Your task to perform on an android device: Open location settings Image 0: 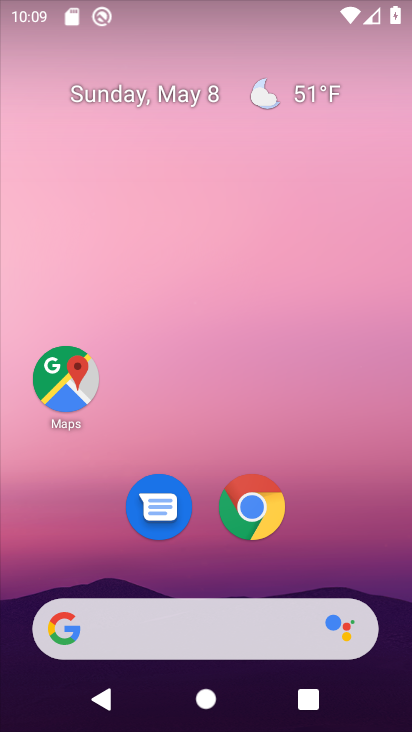
Step 0: drag from (206, 568) to (201, 57)
Your task to perform on an android device: Open location settings Image 1: 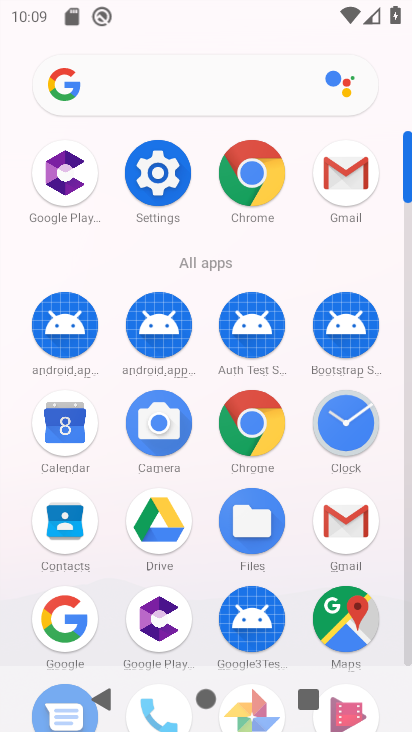
Step 1: drag from (218, 377) to (235, 161)
Your task to perform on an android device: Open location settings Image 2: 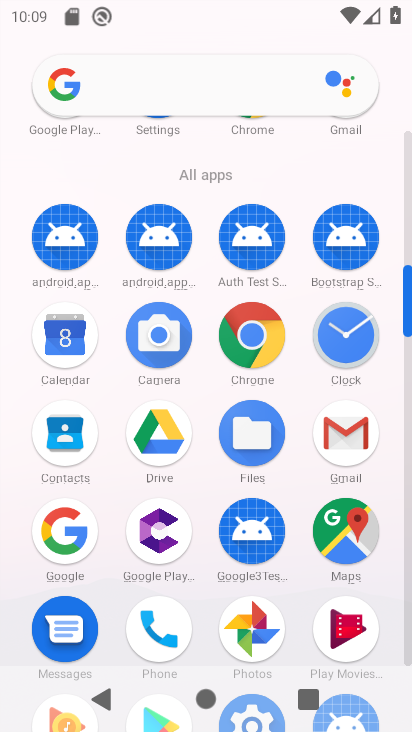
Step 2: drag from (203, 590) to (225, 180)
Your task to perform on an android device: Open location settings Image 3: 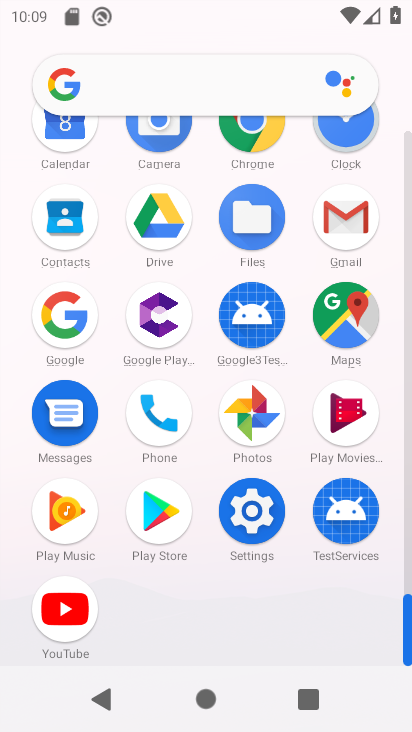
Step 3: click (248, 505)
Your task to perform on an android device: Open location settings Image 4: 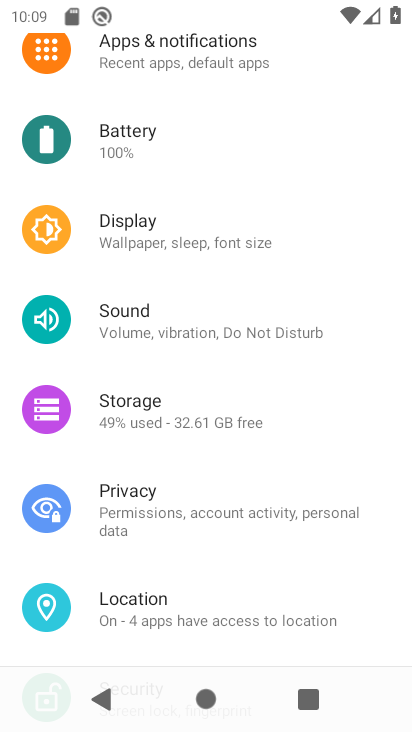
Step 4: click (177, 599)
Your task to perform on an android device: Open location settings Image 5: 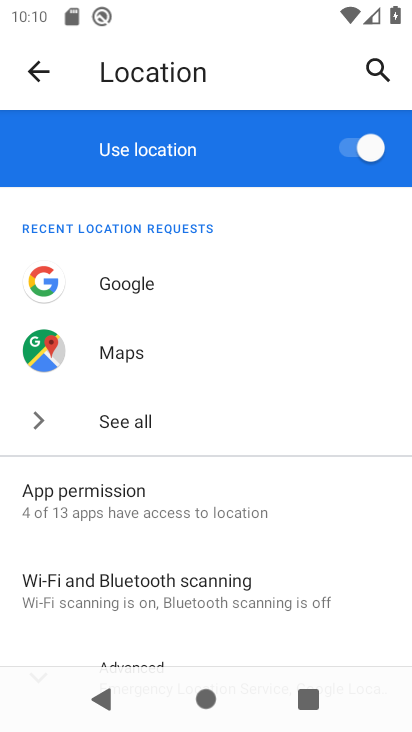
Step 5: drag from (190, 579) to (187, 248)
Your task to perform on an android device: Open location settings Image 6: 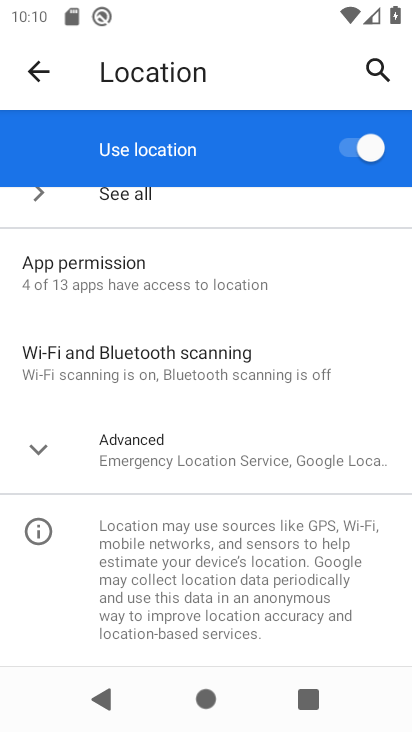
Step 6: click (38, 441)
Your task to perform on an android device: Open location settings Image 7: 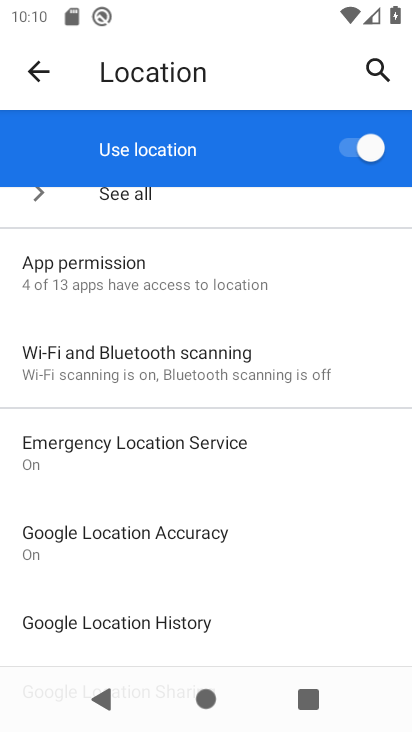
Step 7: task complete